Your task to perform on an android device: turn pop-ups on in chrome Image 0: 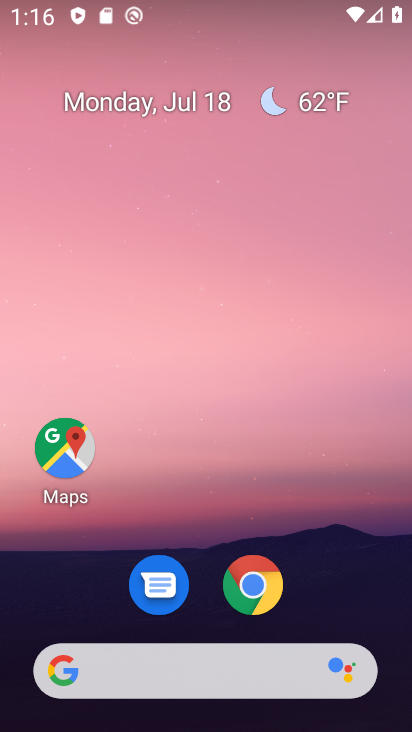
Step 0: click (253, 590)
Your task to perform on an android device: turn pop-ups on in chrome Image 1: 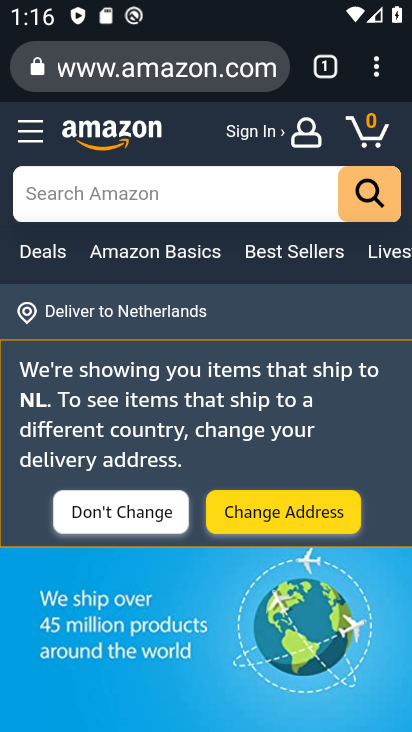
Step 1: drag from (381, 66) to (183, 587)
Your task to perform on an android device: turn pop-ups on in chrome Image 2: 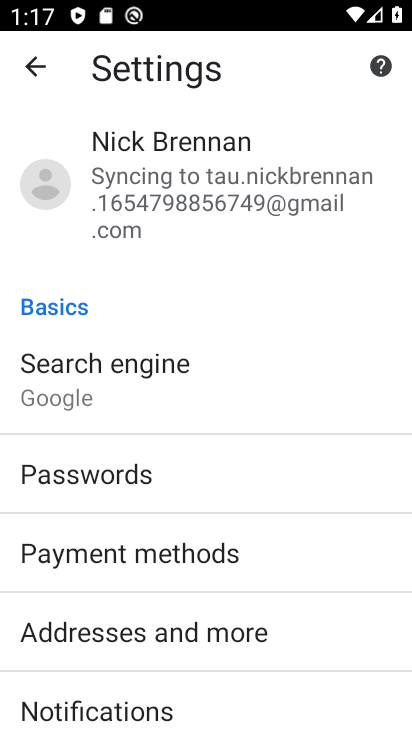
Step 2: drag from (91, 689) to (62, 23)
Your task to perform on an android device: turn pop-ups on in chrome Image 3: 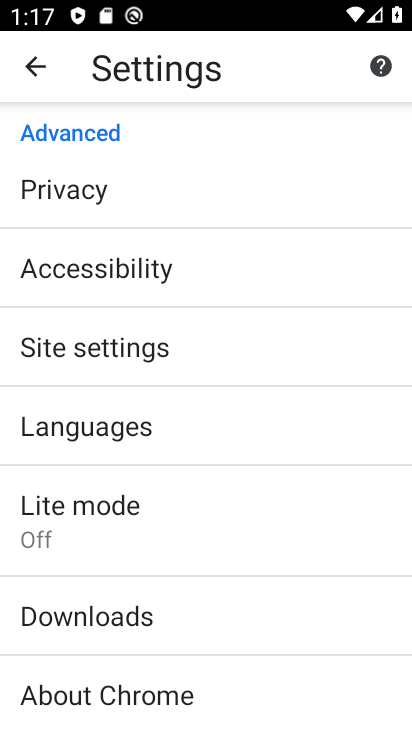
Step 3: drag from (151, 604) to (86, 54)
Your task to perform on an android device: turn pop-ups on in chrome Image 4: 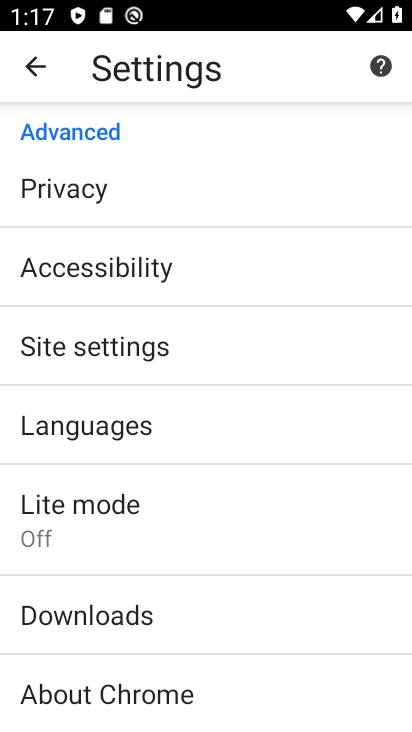
Step 4: click (95, 357)
Your task to perform on an android device: turn pop-ups on in chrome Image 5: 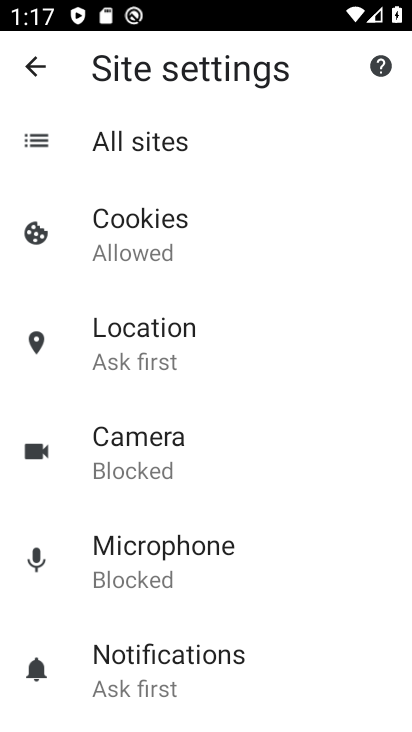
Step 5: drag from (158, 623) to (126, 166)
Your task to perform on an android device: turn pop-ups on in chrome Image 6: 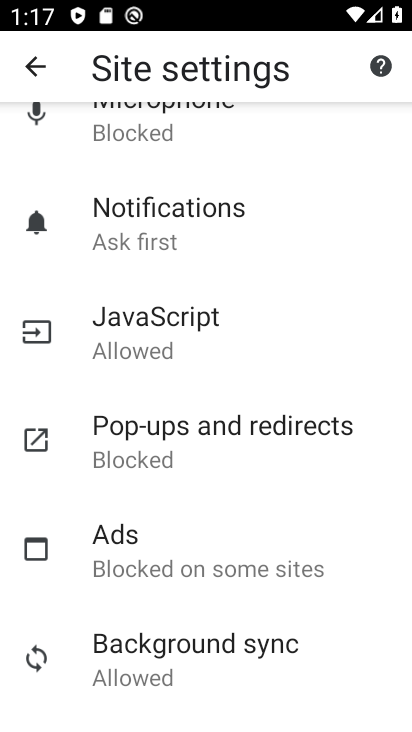
Step 6: click (179, 428)
Your task to perform on an android device: turn pop-ups on in chrome Image 7: 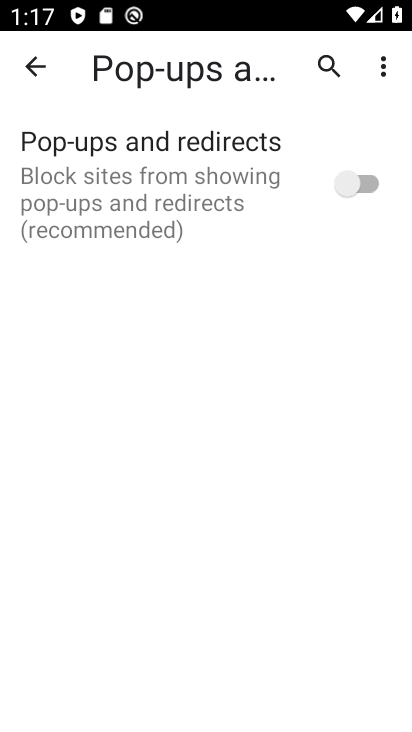
Step 7: click (369, 184)
Your task to perform on an android device: turn pop-ups on in chrome Image 8: 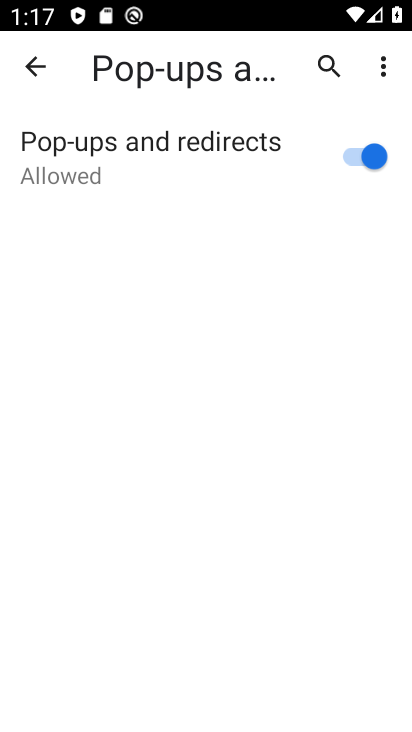
Step 8: task complete